Your task to perform on an android device: turn pop-ups off in chrome Image 0: 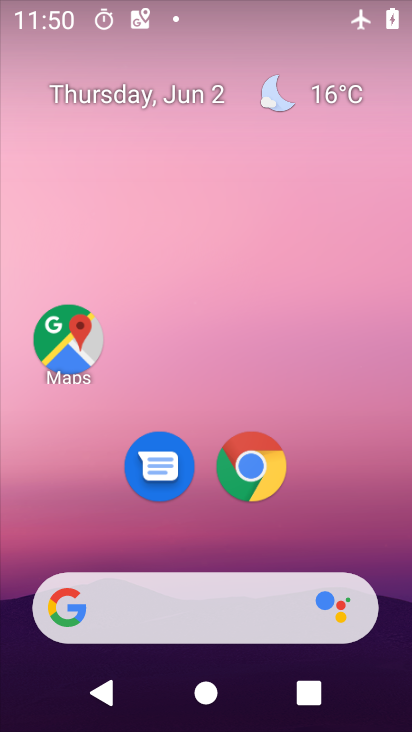
Step 0: click (275, 474)
Your task to perform on an android device: turn pop-ups off in chrome Image 1: 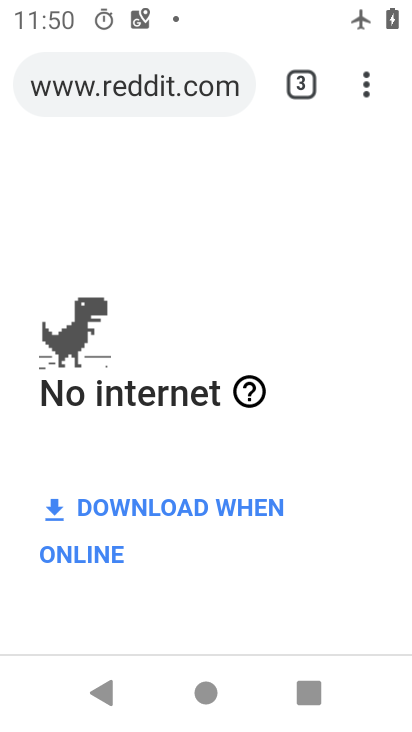
Step 1: drag from (363, 69) to (151, 515)
Your task to perform on an android device: turn pop-ups off in chrome Image 2: 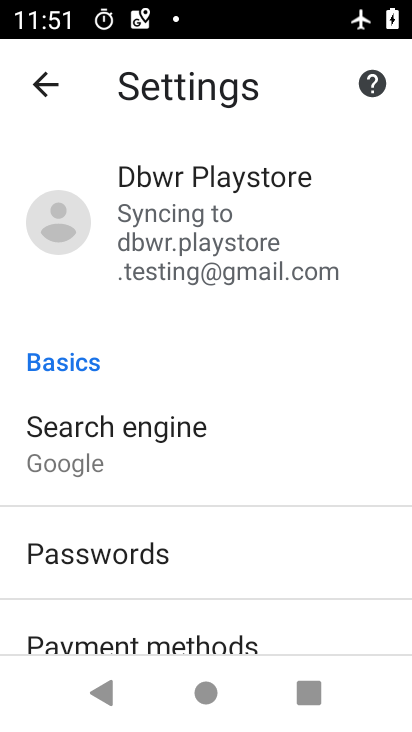
Step 2: drag from (201, 469) to (246, 159)
Your task to perform on an android device: turn pop-ups off in chrome Image 3: 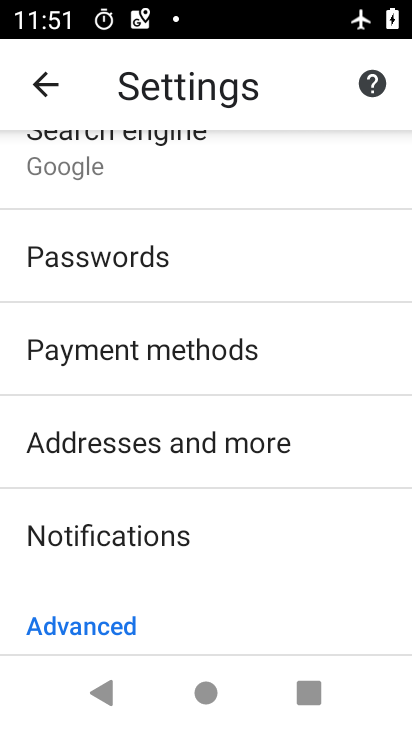
Step 3: drag from (232, 556) to (249, 261)
Your task to perform on an android device: turn pop-ups off in chrome Image 4: 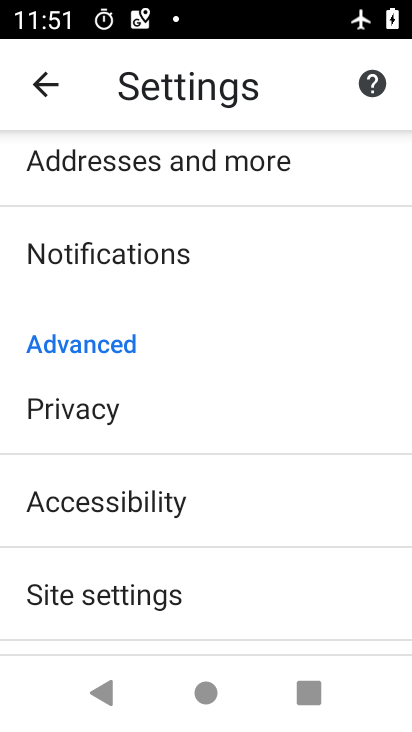
Step 4: drag from (215, 559) to (238, 389)
Your task to perform on an android device: turn pop-ups off in chrome Image 5: 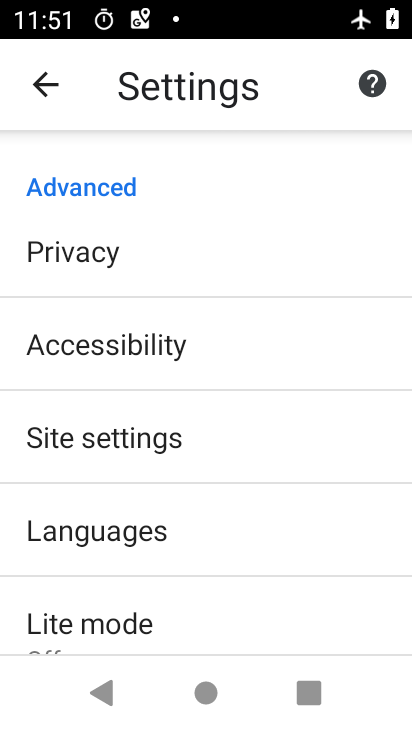
Step 5: click (174, 429)
Your task to perform on an android device: turn pop-ups off in chrome Image 6: 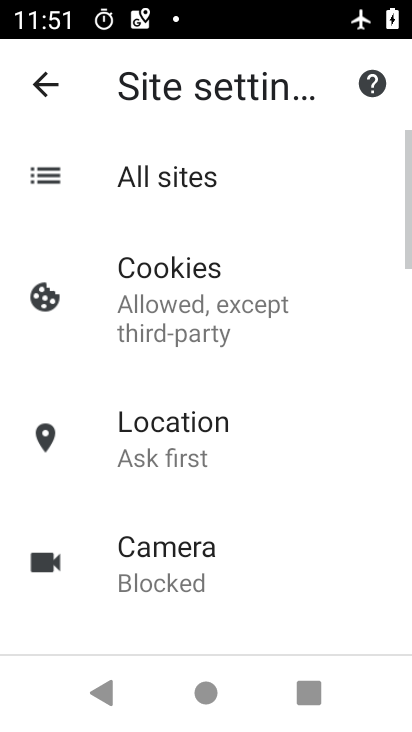
Step 6: drag from (237, 606) to (280, 241)
Your task to perform on an android device: turn pop-ups off in chrome Image 7: 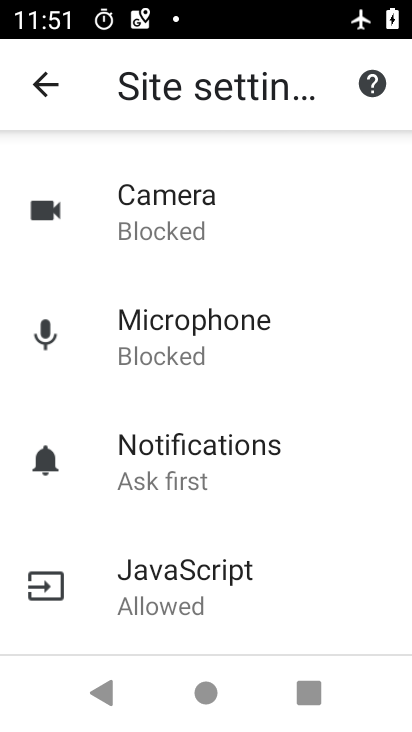
Step 7: drag from (207, 572) to (228, 330)
Your task to perform on an android device: turn pop-ups off in chrome Image 8: 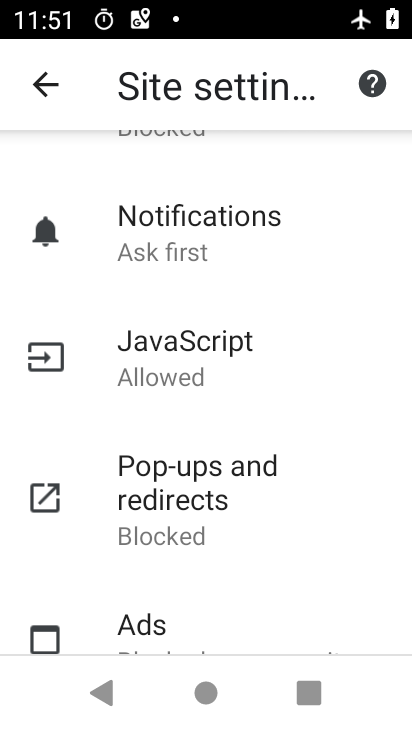
Step 8: click (230, 501)
Your task to perform on an android device: turn pop-ups off in chrome Image 9: 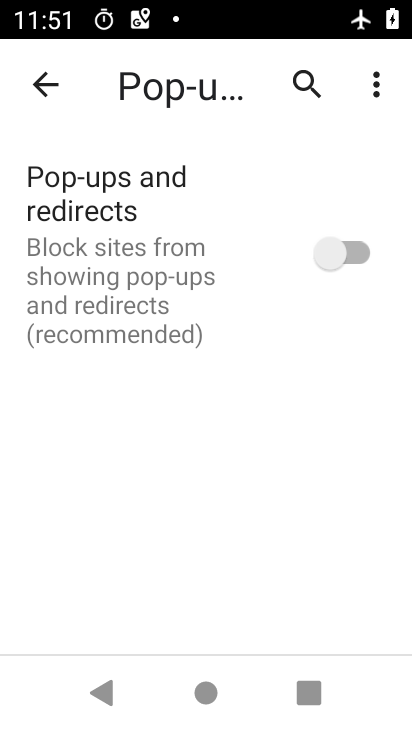
Step 9: task complete